Your task to perform on an android device: What is the recent news? Image 0: 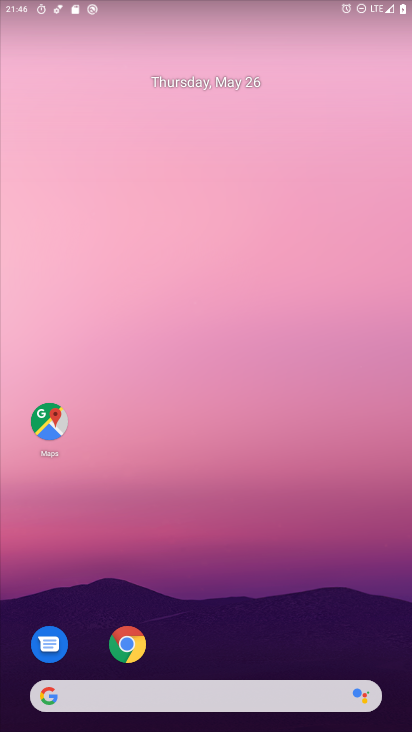
Step 0: drag from (190, 637) to (286, 87)
Your task to perform on an android device: What is the recent news? Image 1: 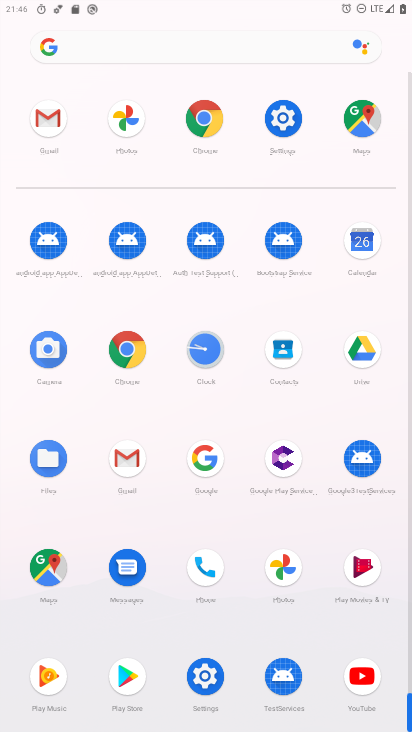
Step 1: click (135, 53)
Your task to perform on an android device: What is the recent news? Image 2: 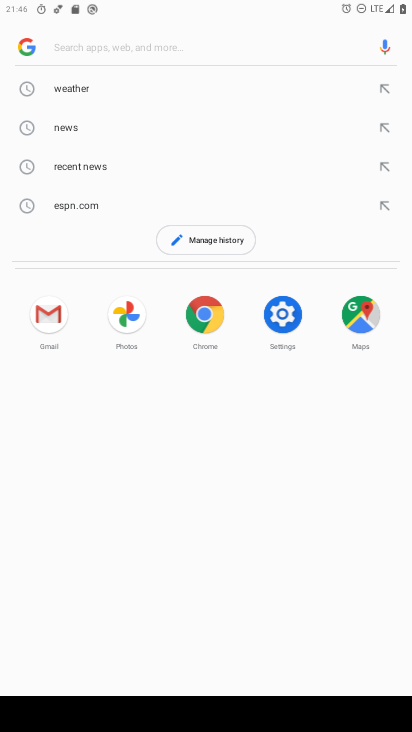
Step 2: click (100, 172)
Your task to perform on an android device: What is the recent news? Image 3: 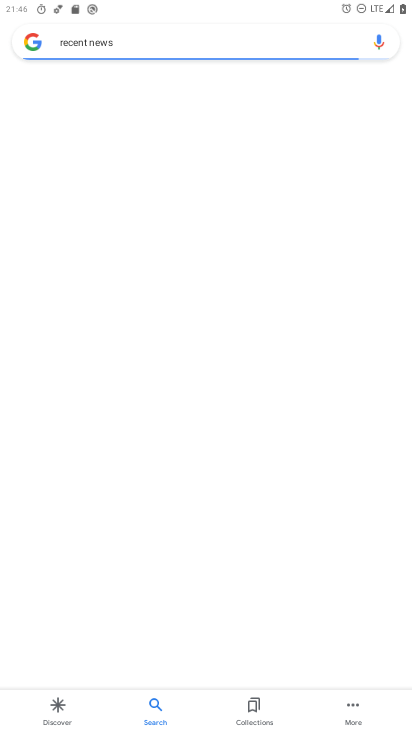
Step 3: task complete